Your task to perform on an android device: Open network settings Image 0: 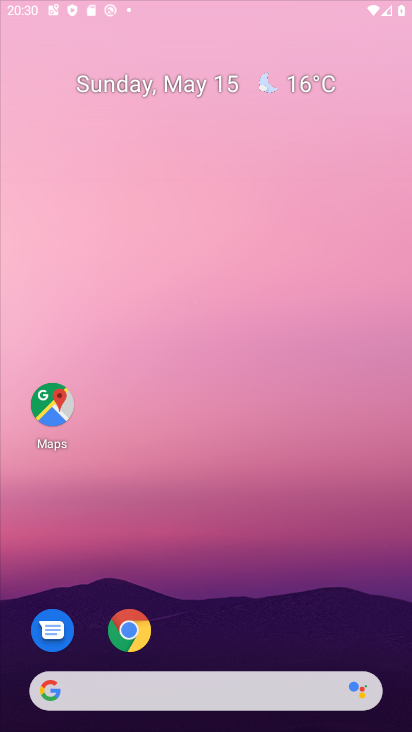
Step 0: drag from (215, 637) to (339, 11)
Your task to perform on an android device: Open network settings Image 1: 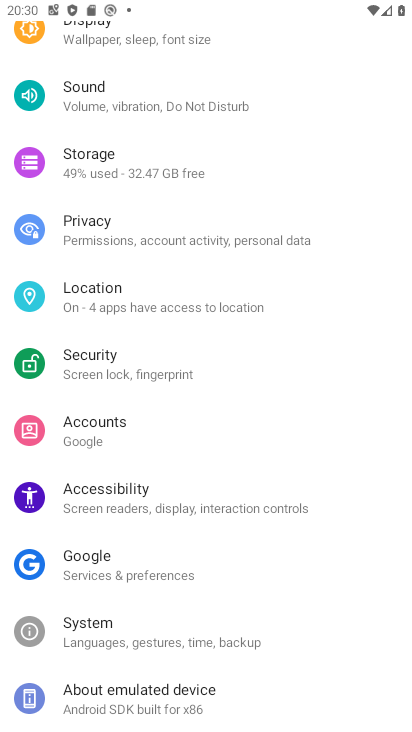
Step 1: drag from (132, 124) to (92, 532)
Your task to perform on an android device: Open network settings Image 2: 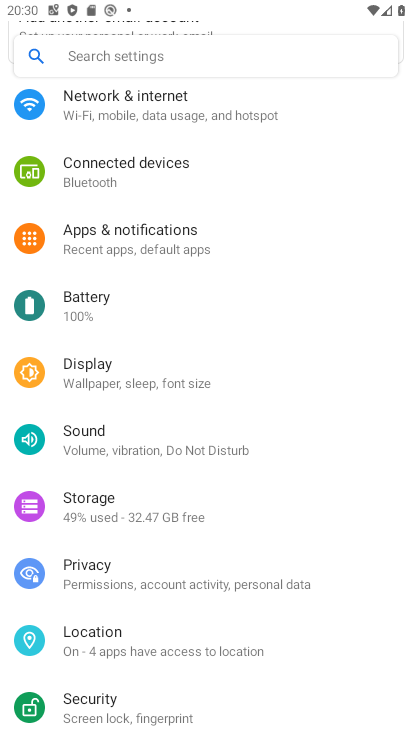
Step 2: click (141, 120)
Your task to perform on an android device: Open network settings Image 3: 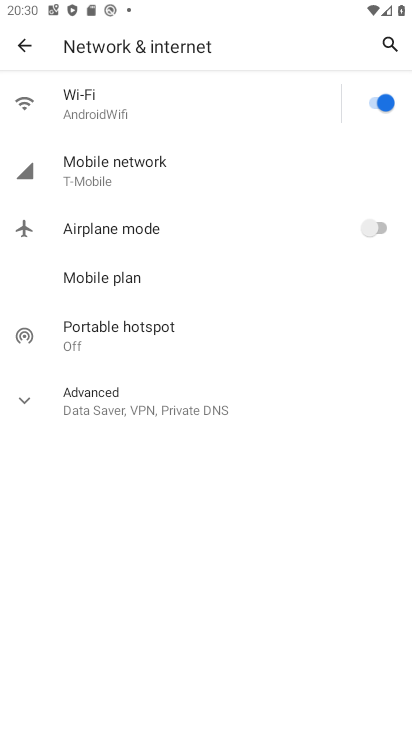
Step 3: task complete